Your task to perform on an android device: Play the last video I watched on Youtube Image 0: 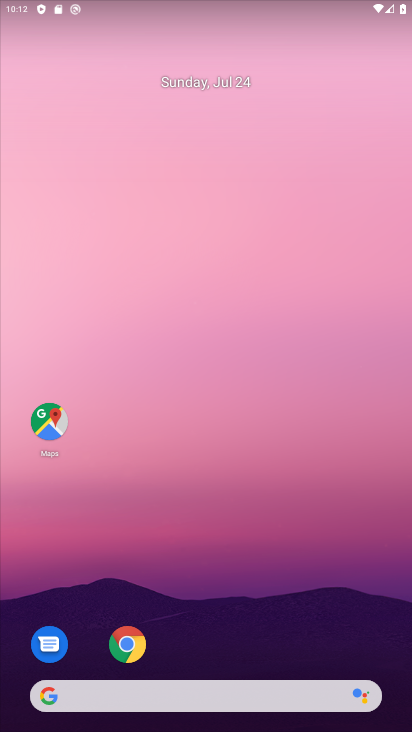
Step 0: drag from (272, 585) to (252, 6)
Your task to perform on an android device: Play the last video I watched on Youtube Image 1: 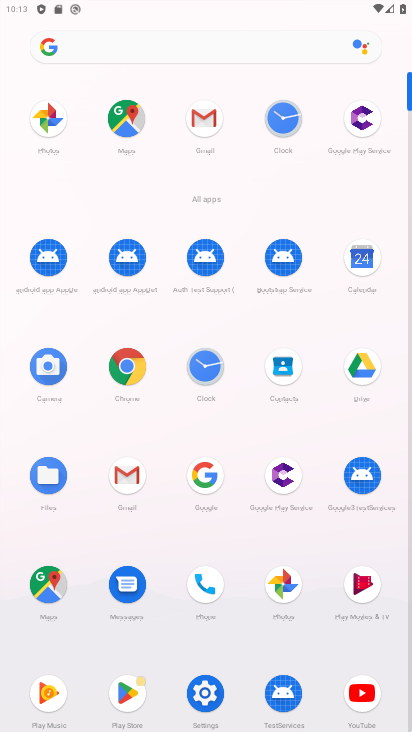
Step 1: click (370, 692)
Your task to perform on an android device: Play the last video I watched on Youtube Image 2: 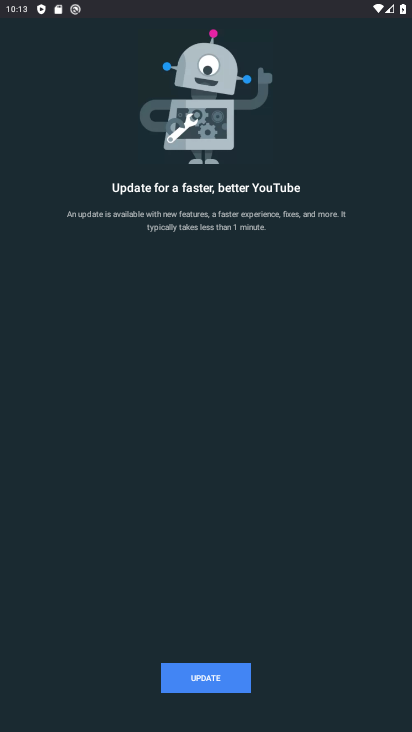
Step 2: click (205, 684)
Your task to perform on an android device: Play the last video I watched on Youtube Image 3: 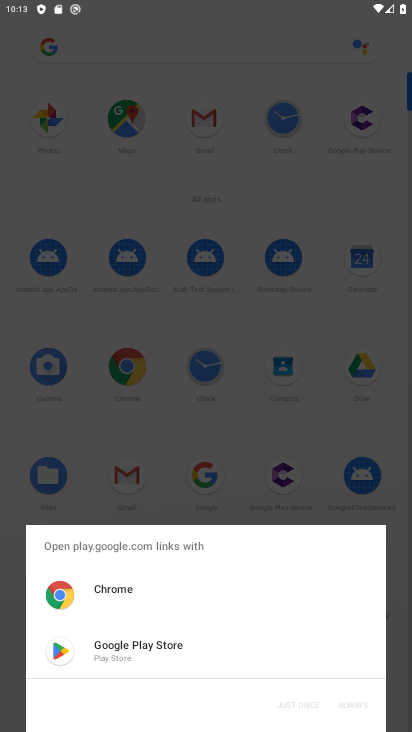
Step 3: click (122, 657)
Your task to perform on an android device: Play the last video I watched on Youtube Image 4: 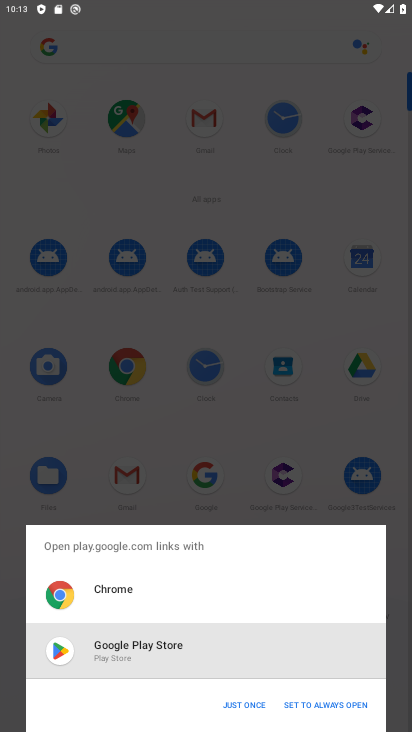
Step 4: click (258, 705)
Your task to perform on an android device: Play the last video I watched on Youtube Image 5: 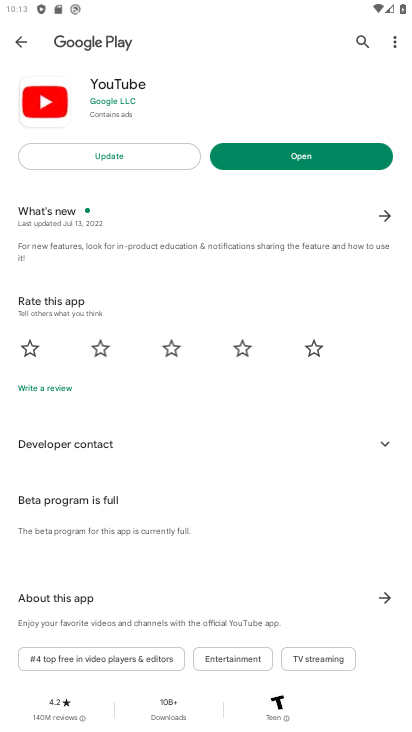
Step 5: click (109, 162)
Your task to perform on an android device: Play the last video I watched on Youtube Image 6: 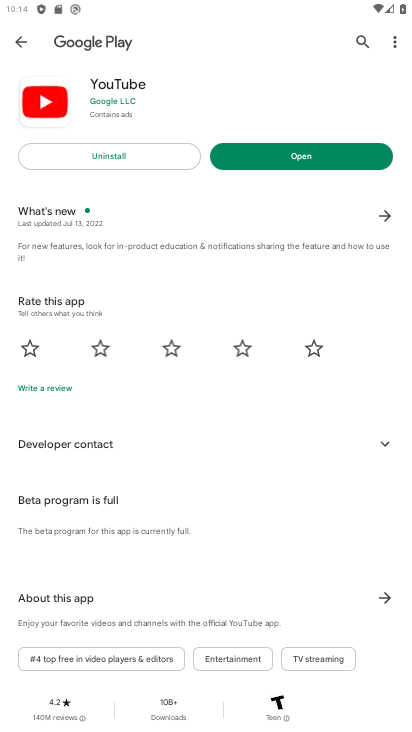
Step 6: click (297, 160)
Your task to perform on an android device: Play the last video I watched on Youtube Image 7: 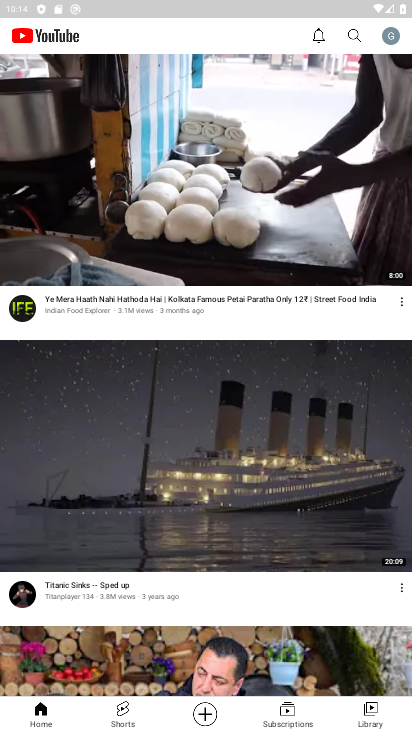
Step 7: click (371, 717)
Your task to perform on an android device: Play the last video I watched on Youtube Image 8: 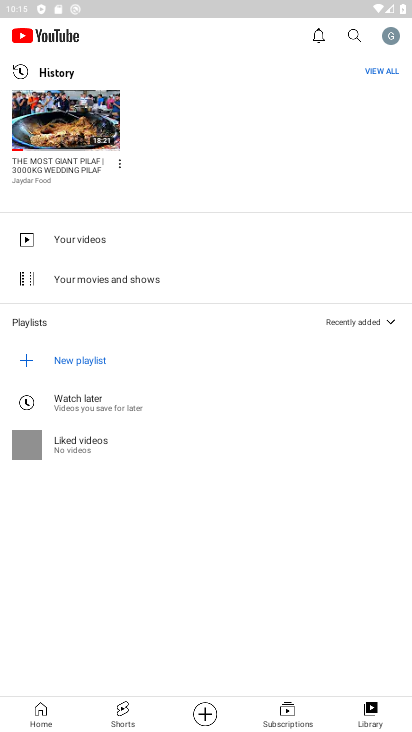
Step 8: click (38, 125)
Your task to perform on an android device: Play the last video I watched on Youtube Image 9: 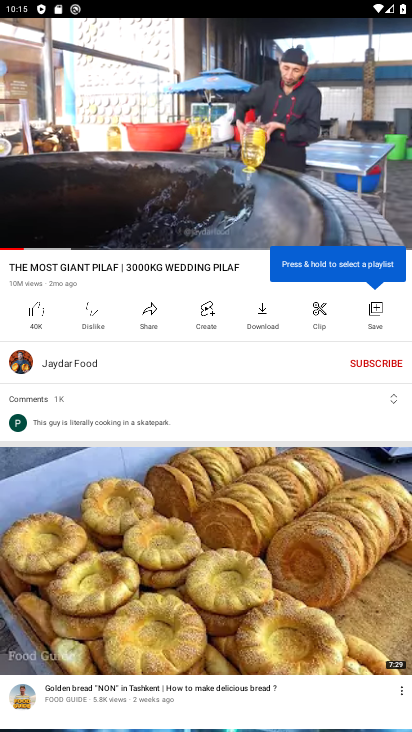
Step 9: task complete